Your task to perform on an android device: Search for vegetarian restaurants on Maps Image 0: 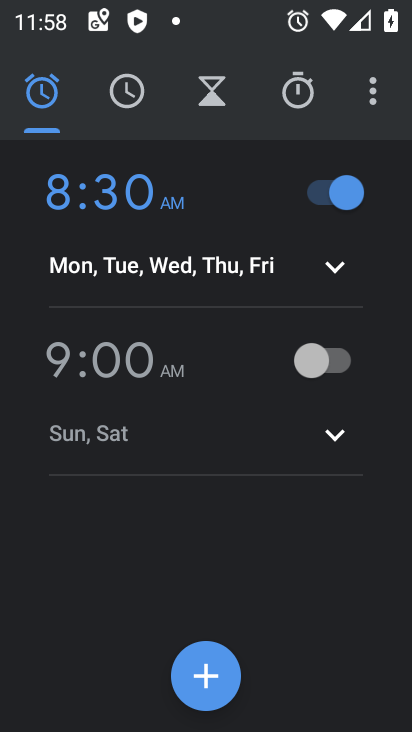
Step 0: press home button
Your task to perform on an android device: Search for vegetarian restaurants on Maps Image 1: 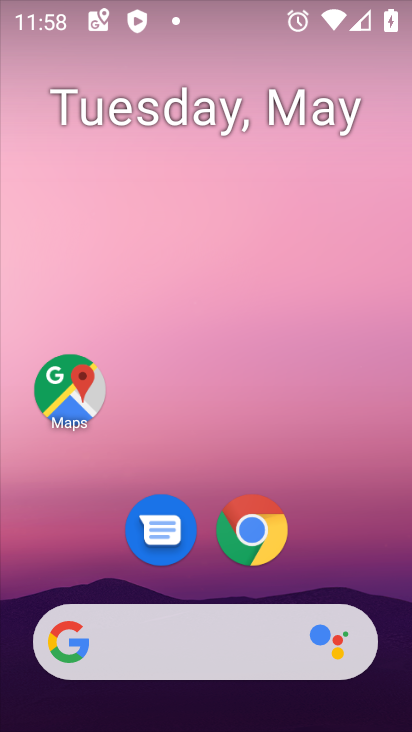
Step 1: click (68, 392)
Your task to perform on an android device: Search for vegetarian restaurants on Maps Image 2: 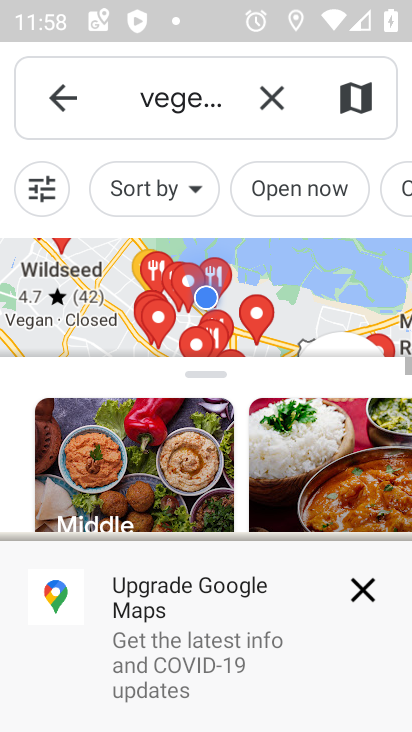
Step 2: click (267, 103)
Your task to perform on an android device: Search for vegetarian restaurants on Maps Image 3: 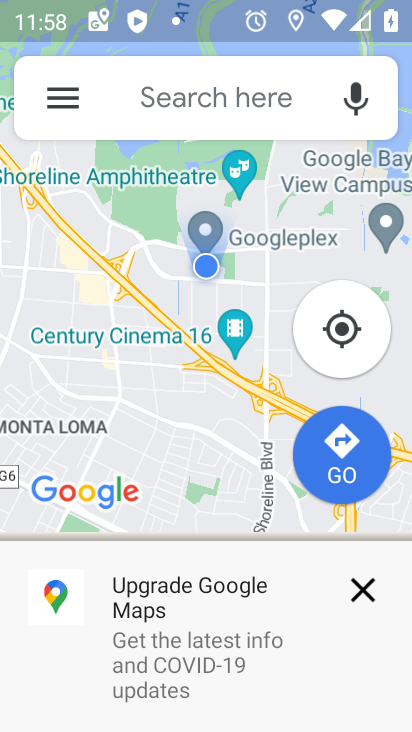
Step 3: click (240, 99)
Your task to perform on an android device: Search for vegetarian restaurants on Maps Image 4: 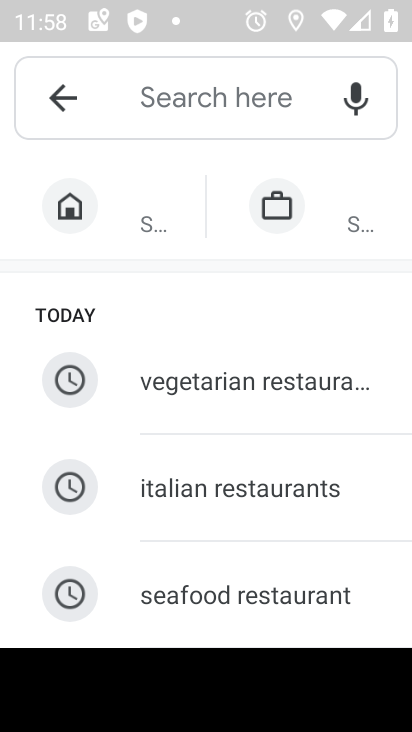
Step 4: type "vegetarian restaurants"
Your task to perform on an android device: Search for vegetarian restaurants on Maps Image 5: 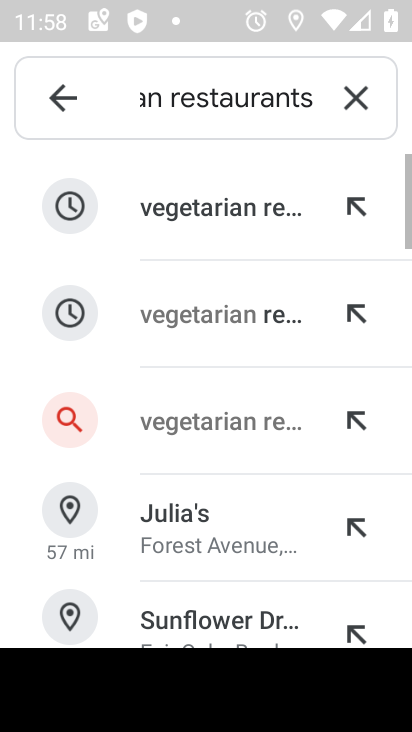
Step 5: click (219, 215)
Your task to perform on an android device: Search for vegetarian restaurants on Maps Image 6: 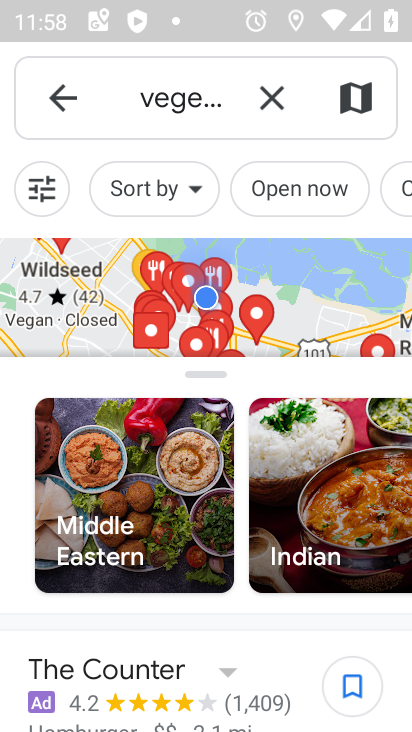
Step 6: task complete